Your task to perform on an android device: Go to CNN.com Image 0: 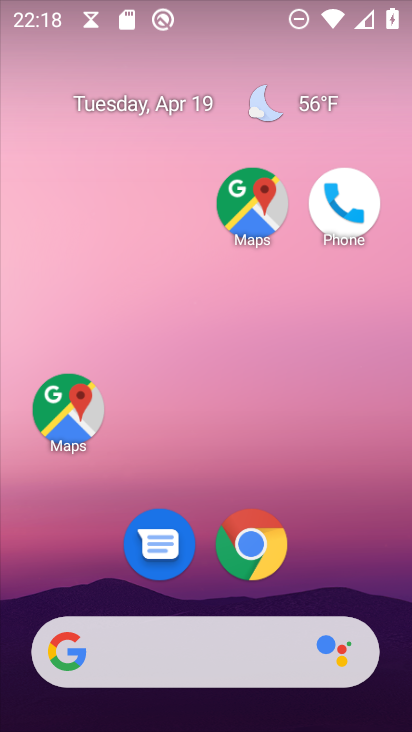
Step 0: drag from (191, 647) to (310, 68)
Your task to perform on an android device: Go to CNN.com Image 1: 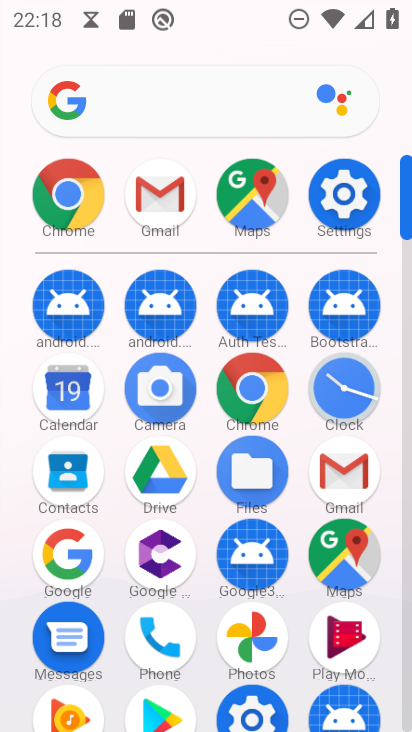
Step 1: click (70, 208)
Your task to perform on an android device: Go to CNN.com Image 2: 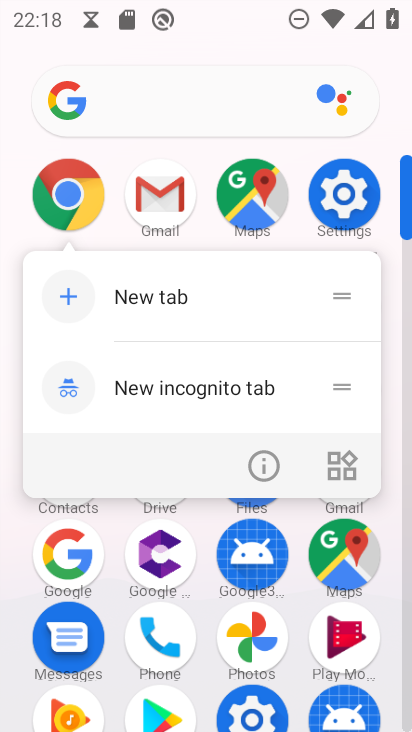
Step 2: click (76, 199)
Your task to perform on an android device: Go to CNN.com Image 3: 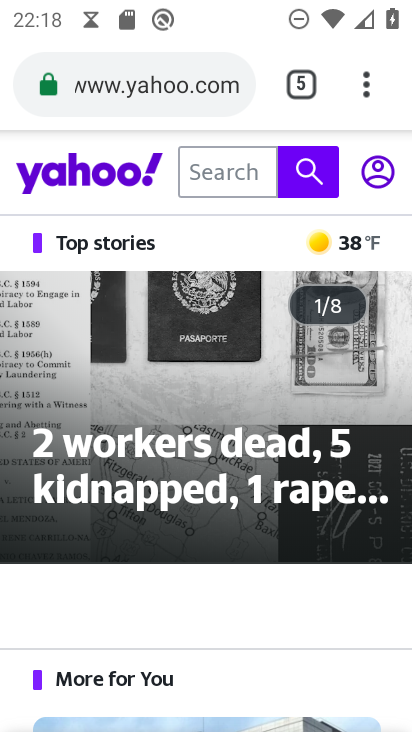
Step 3: click (364, 84)
Your task to perform on an android device: Go to CNN.com Image 4: 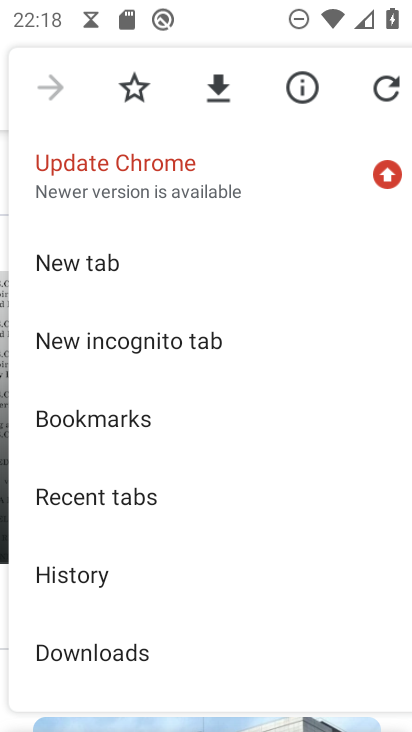
Step 4: click (100, 263)
Your task to perform on an android device: Go to CNN.com Image 5: 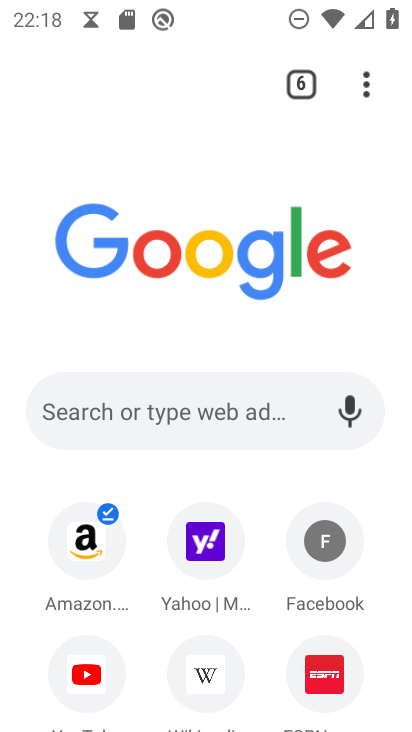
Step 5: click (124, 408)
Your task to perform on an android device: Go to CNN.com Image 6: 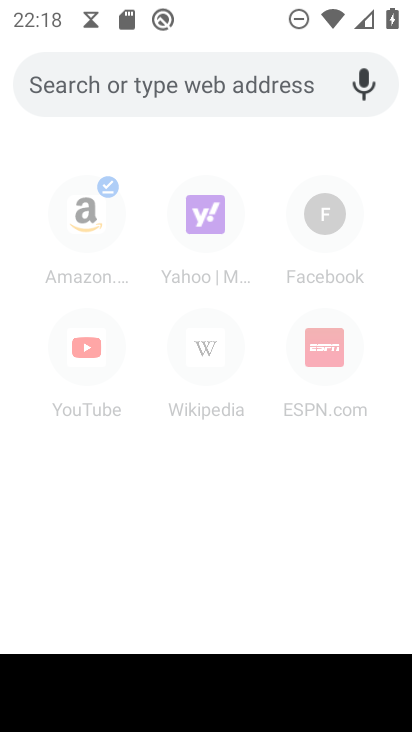
Step 6: type "CNN.com"
Your task to perform on an android device: Go to CNN.com Image 7: 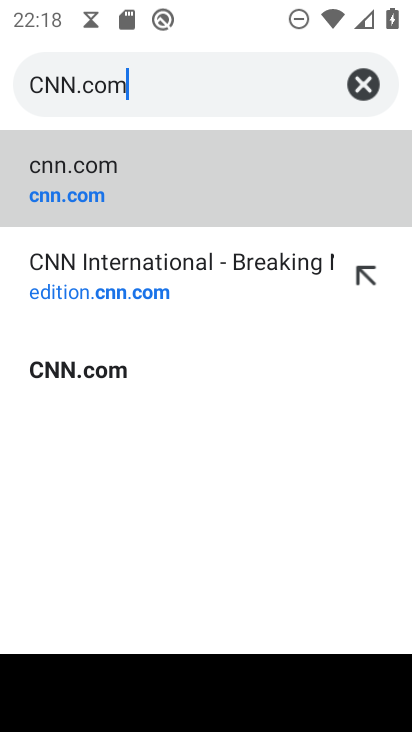
Step 7: click (131, 172)
Your task to perform on an android device: Go to CNN.com Image 8: 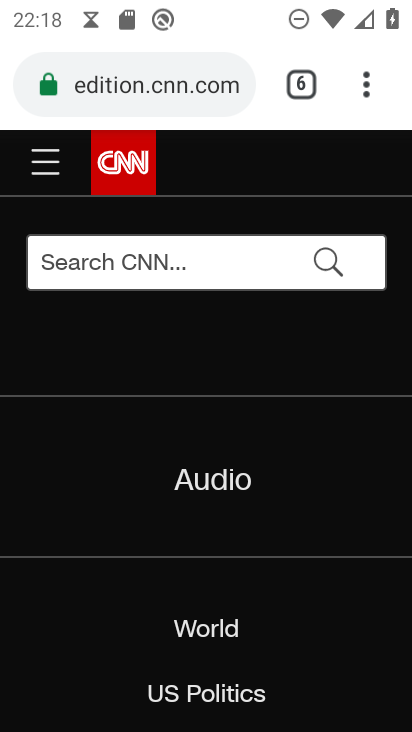
Step 8: task complete